Your task to perform on an android device: Go to Reddit.com Image 0: 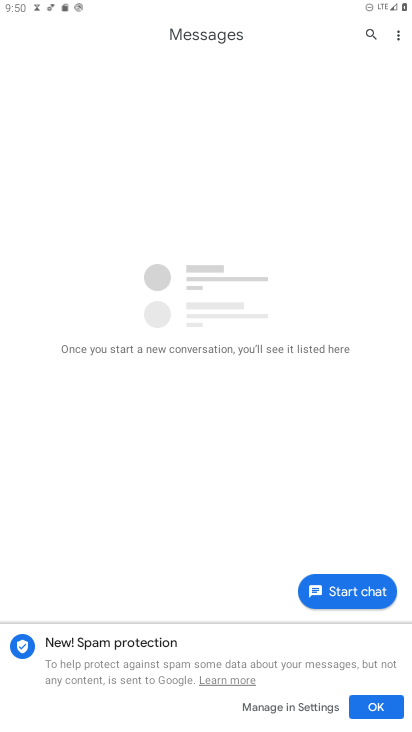
Step 0: press home button
Your task to perform on an android device: Go to Reddit.com Image 1: 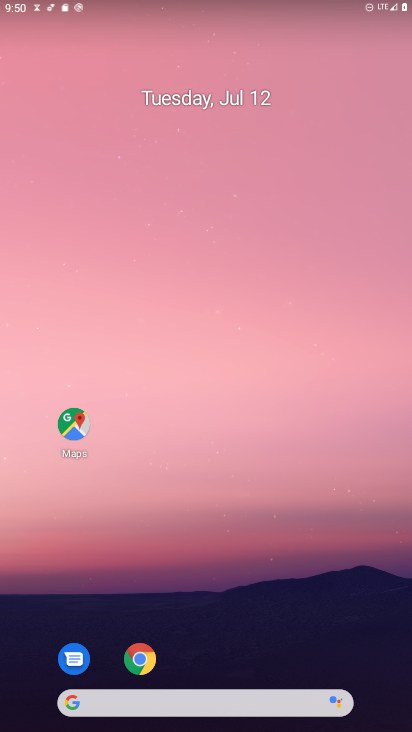
Step 1: click (140, 659)
Your task to perform on an android device: Go to Reddit.com Image 2: 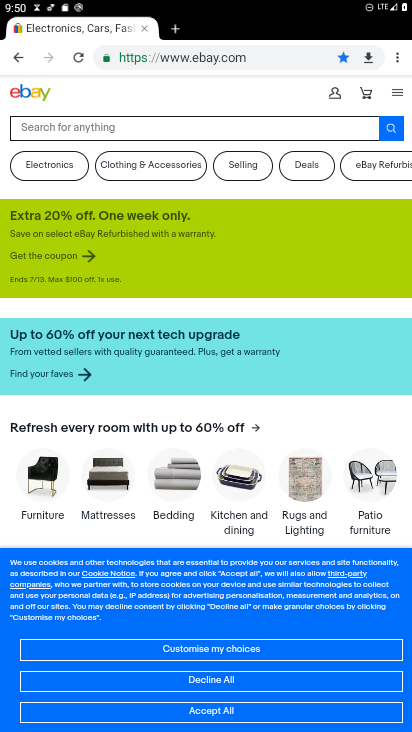
Step 2: click (275, 62)
Your task to perform on an android device: Go to Reddit.com Image 3: 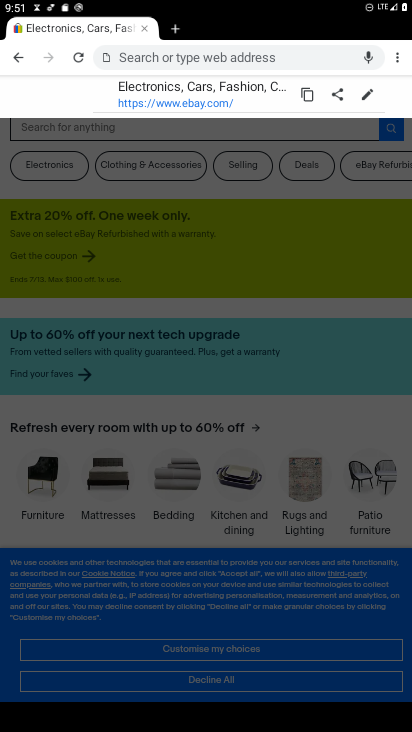
Step 3: type "Reddit.com"
Your task to perform on an android device: Go to Reddit.com Image 4: 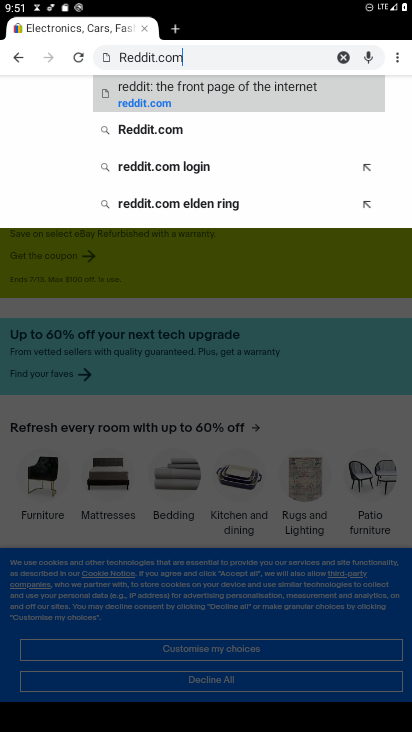
Step 4: click (168, 131)
Your task to perform on an android device: Go to Reddit.com Image 5: 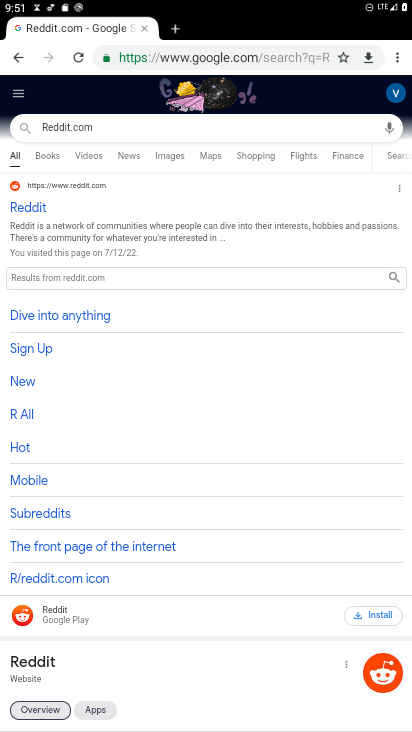
Step 5: click (28, 211)
Your task to perform on an android device: Go to Reddit.com Image 6: 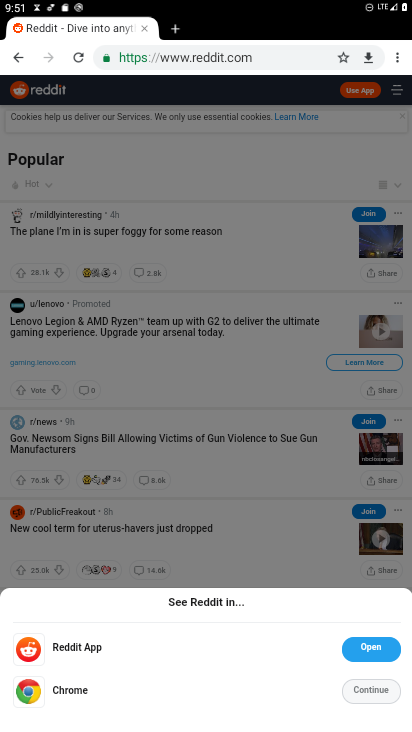
Step 6: click (386, 688)
Your task to perform on an android device: Go to Reddit.com Image 7: 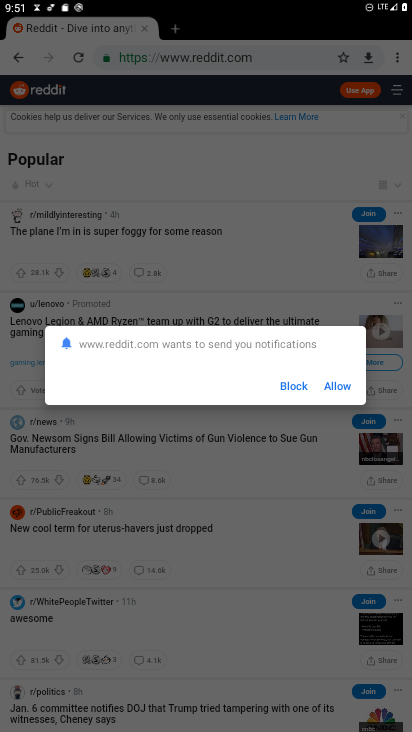
Step 7: click (335, 380)
Your task to perform on an android device: Go to Reddit.com Image 8: 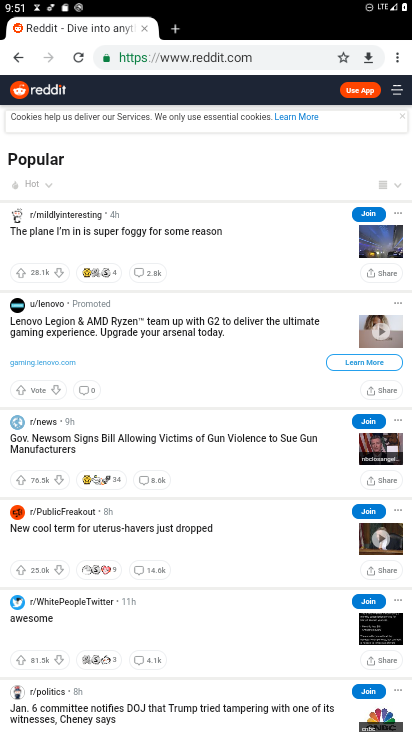
Step 8: task complete